Your task to perform on an android device: Add razer blade to the cart on walmart.com Image 0: 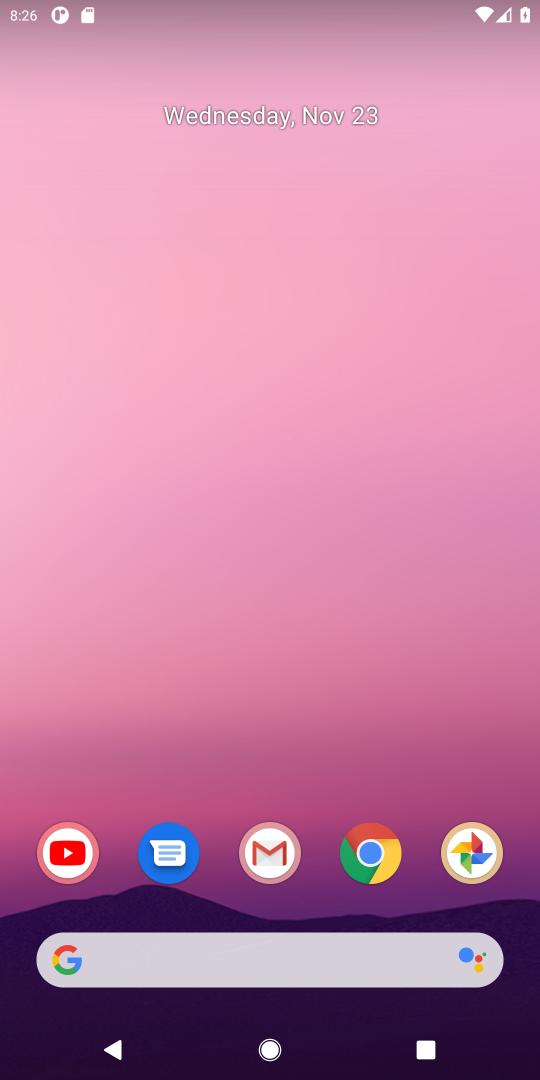
Step 0: click (367, 868)
Your task to perform on an android device: Add razer blade to the cart on walmart.com Image 1: 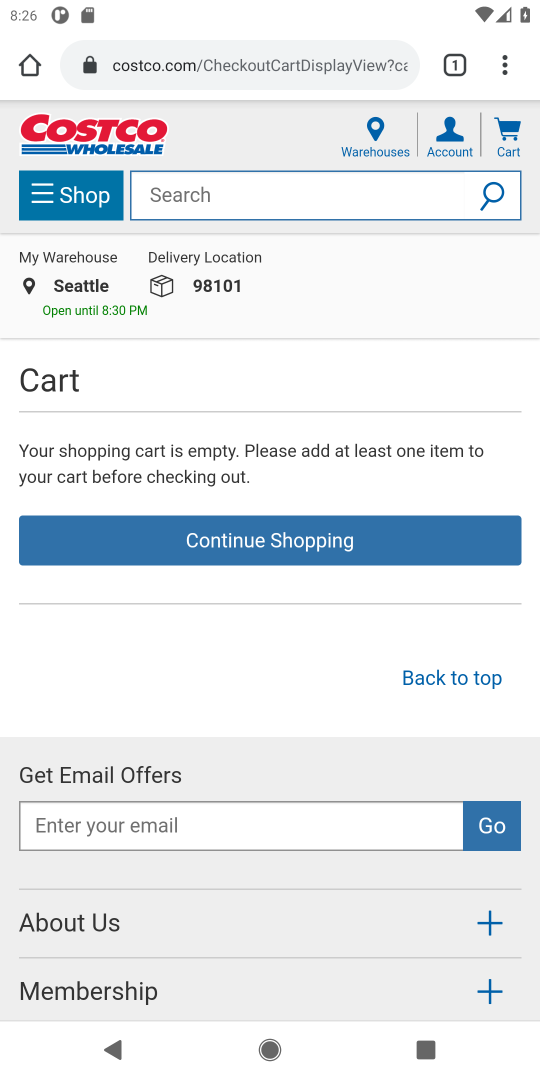
Step 1: click (155, 70)
Your task to perform on an android device: Add razer blade to the cart on walmart.com Image 2: 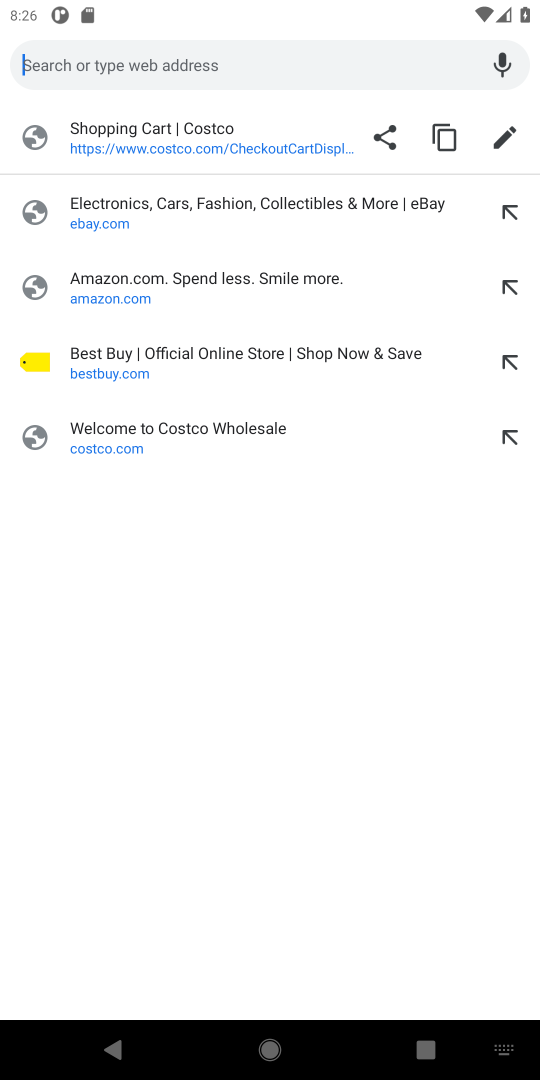
Step 2: type "walmart.com"
Your task to perform on an android device: Add razer blade to the cart on walmart.com Image 3: 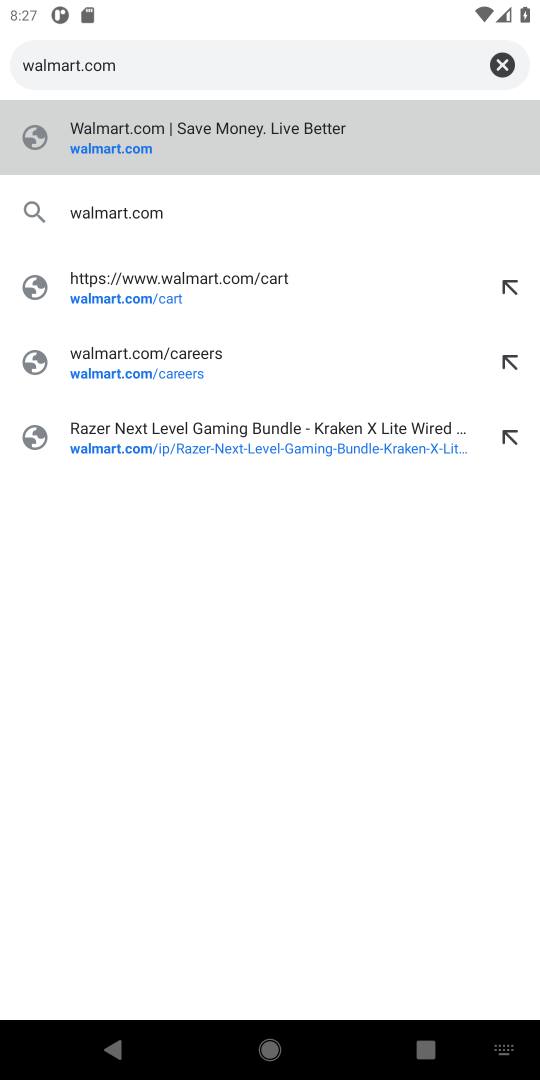
Step 3: click (104, 145)
Your task to perform on an android device: Add razer blade to the cart on walmart.com Image 4: 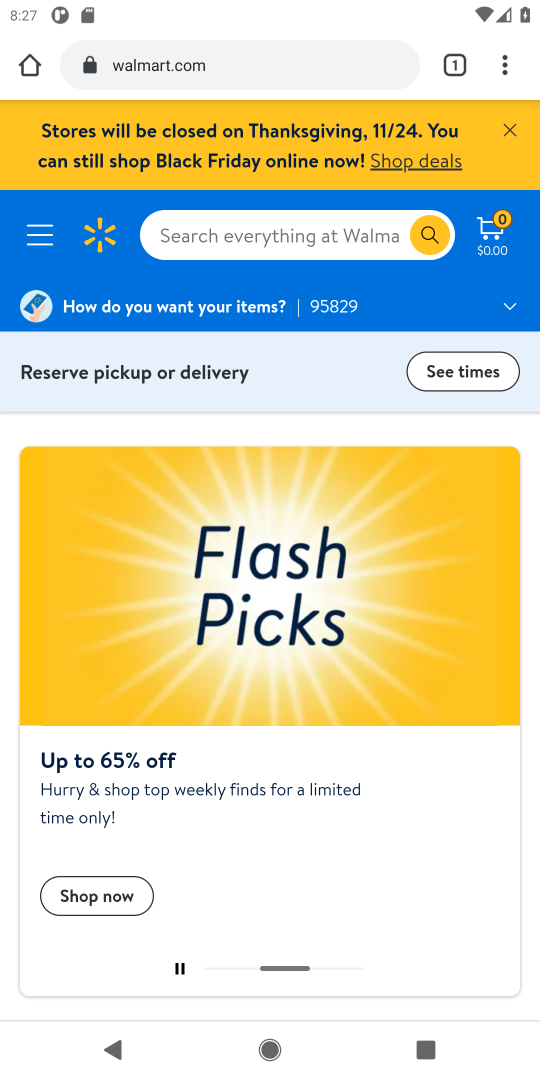
Step 4: click (231, 232)
Your task to perform on an android device: Add razer blade to the cart on walmart.com Image 5: 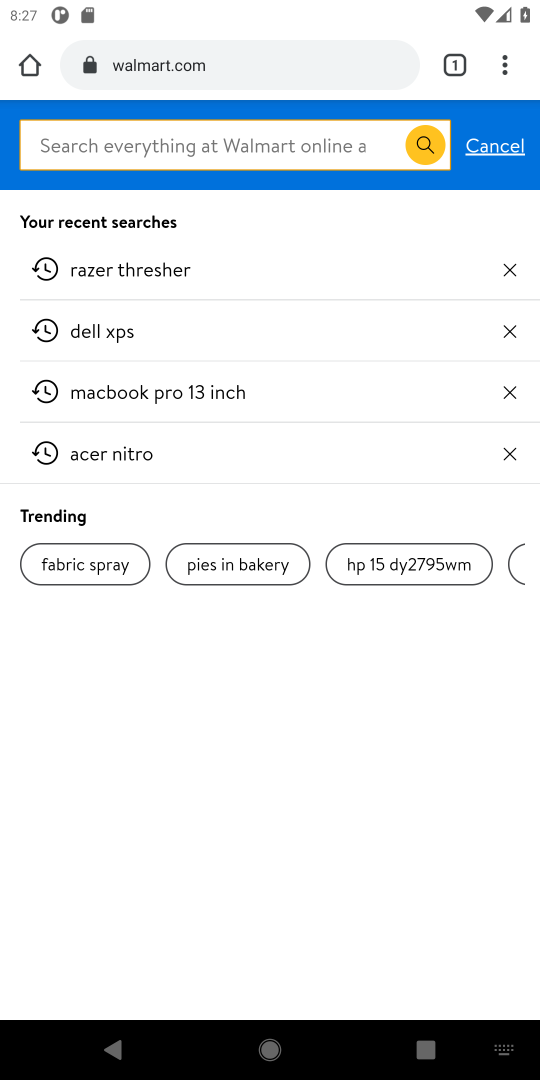
Step 5: type "razer blade"
Your task to perform on an android device: Add razer blade to the cart on walmart.com Image 6: 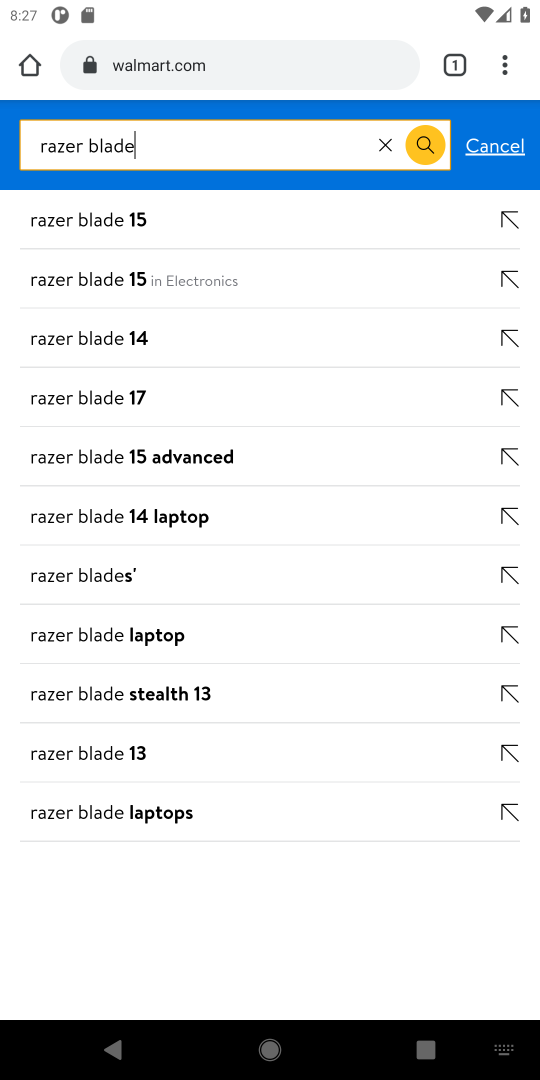
Step 6: click (49, 221)
Your task to perform on an android device: Add razer blade to the cart on walmart.com Image 7: 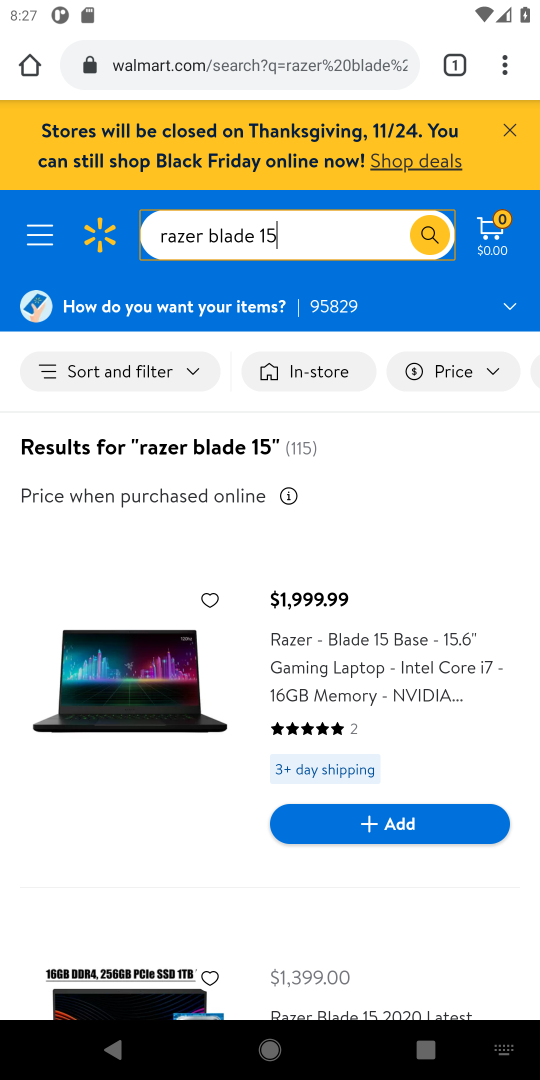
Step 7: click (377, 831)
Your task to perform on an android device: Add razer blade to the cart on walmart.com Image 8: 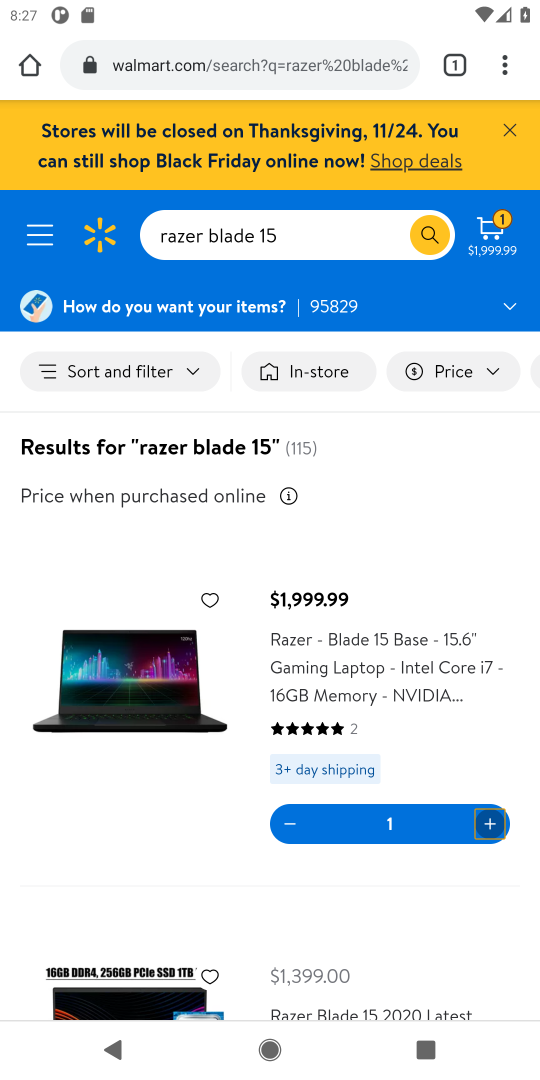
Step 8: task complete